Your task to perform on an android device: Check the news Image 0: 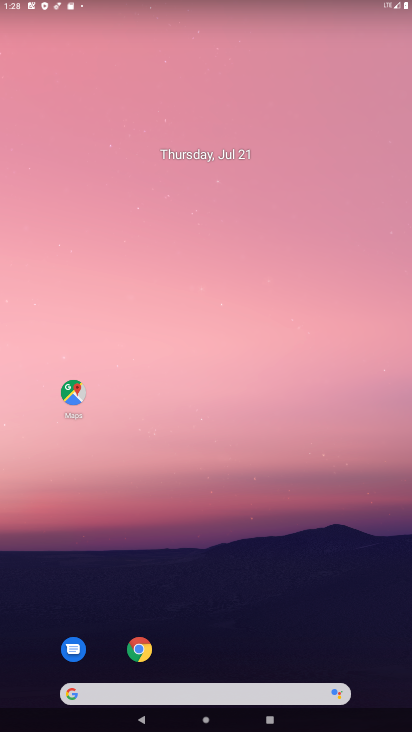
Step 0: drag from (1, 286) to (410, 154)
Your task to perform on an android device: Check the news Image 1: 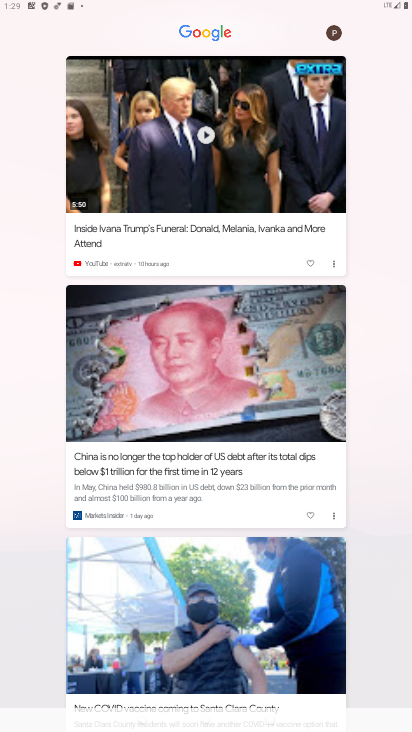
Step 1: task complete